Your task to perform on an android device: toggle show notifications on the lock screen Image 0: 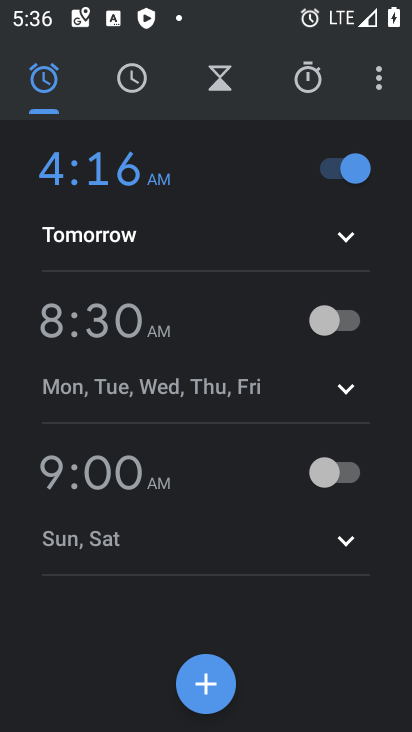
Step 0: press home button
Your task to perform on an android device: toggle show notifications on the lock screen Image 1: 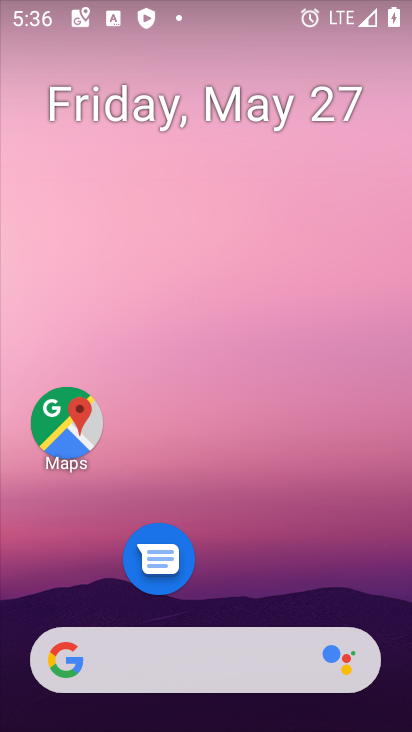
Step 1: drag from (188, 675) to (315, 1)
Your task to perform on an android device: toggle show notifications on the lock screen Image 2: 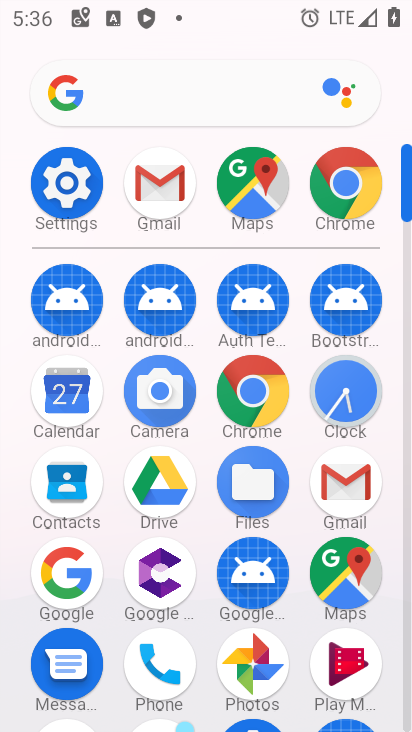
Step 2: click (77, 183)
Your task to perform on an android device: toggle show notifications on the lock screen Image 3: 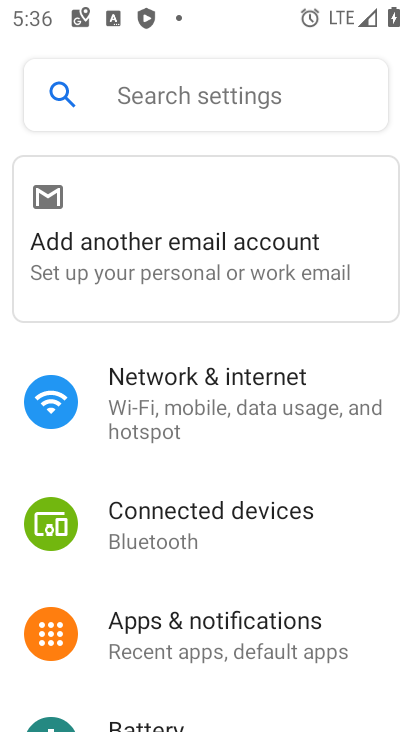
Step 3: click (252, 635)
Your task to perform on an android device: toggle show notifications on the lock screen Image 4: 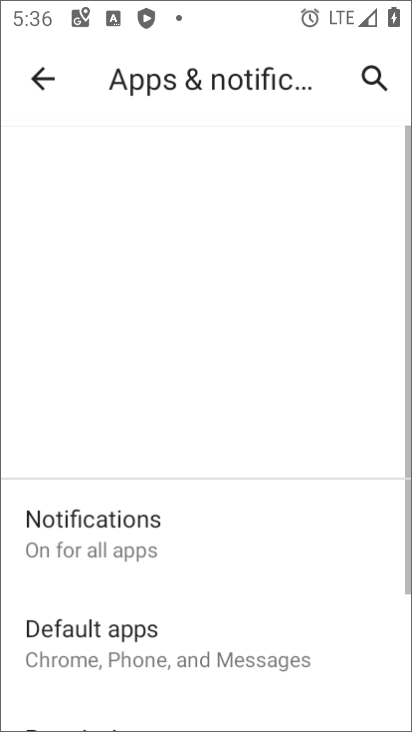
Step 4: drag from (249, 637) to (210, 118)
Your task to perform on an android device: toggle show notifications on the lock screen Image 5: 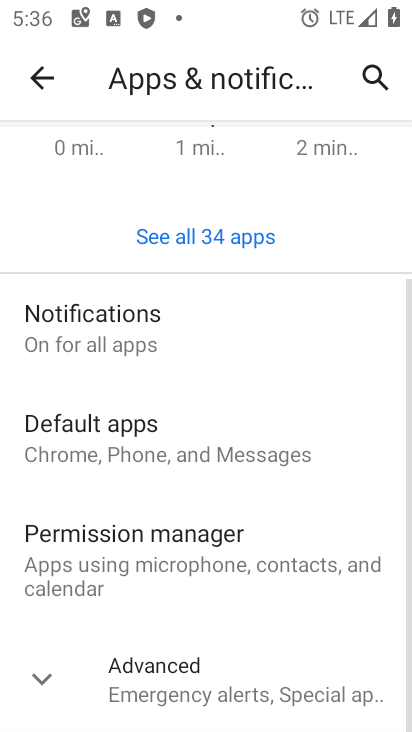
Step 5: drag from (227, 559) to (219, 272)
Your task to perform on an android device: toggle show notifications on the lock screen Image 6: 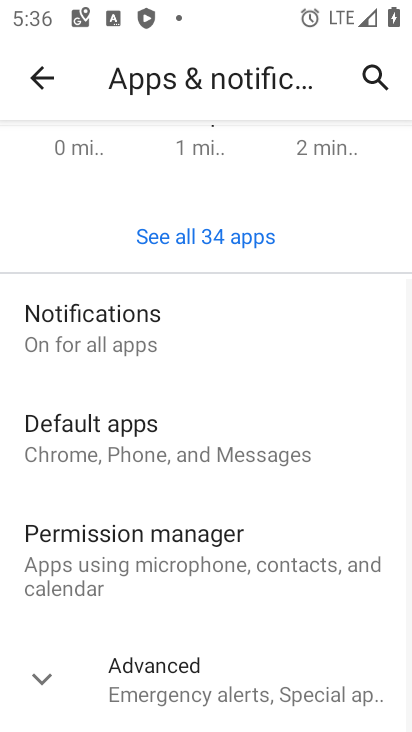
Step 6: click (184, 679)
Your task to perform on an android device: toggle show notifications on the lock screen Image 7: 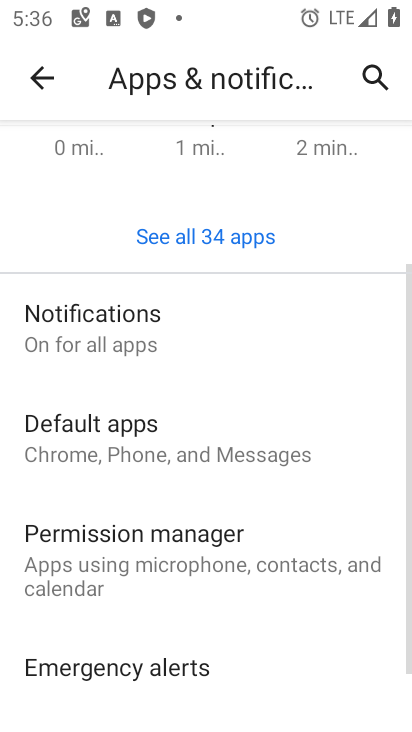
Step 7: drag from (267, 707) to (331, 209)
Your task to perform on an android device: toggle show notifications on the lock screen Image 8: 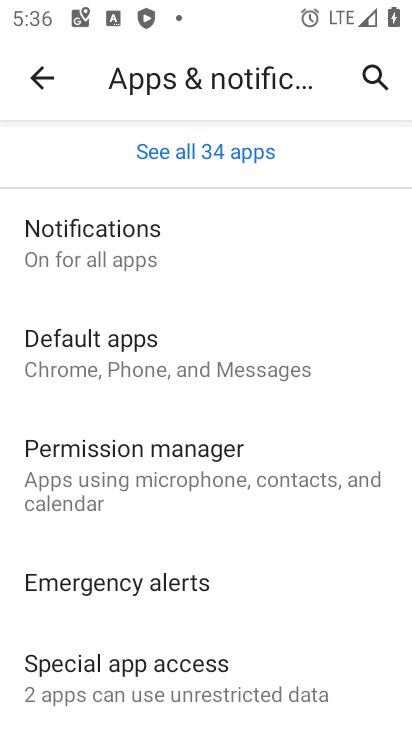
Step 8: click (133, 265)
Your task to perform on an android device: toggle show notifications on the lock screen Image 9: 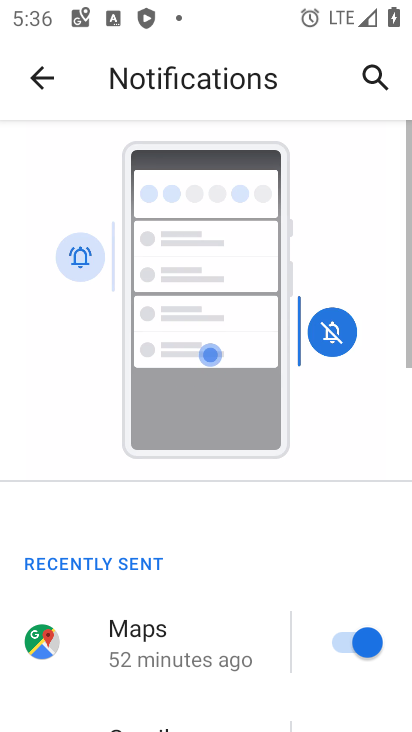
Step 9: drag from (258, 646) to (305, 131)
Your task to perform on an android device: toggle show notifications on the lock screen Image 10: 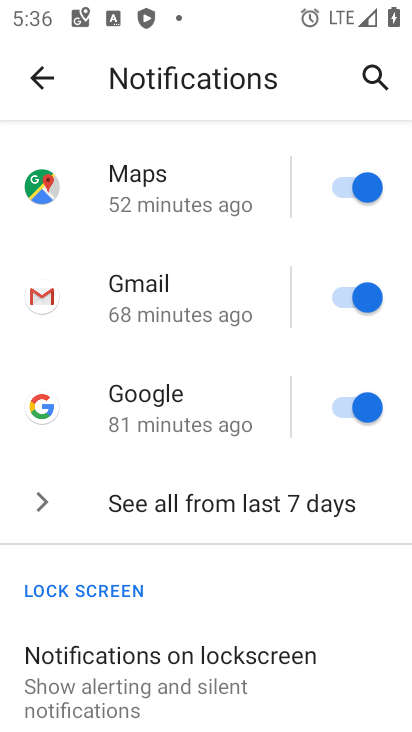
Step 10: click (290, 679)
Your task to perform on an android device: toggle show notifications on the lock screen Image 11: 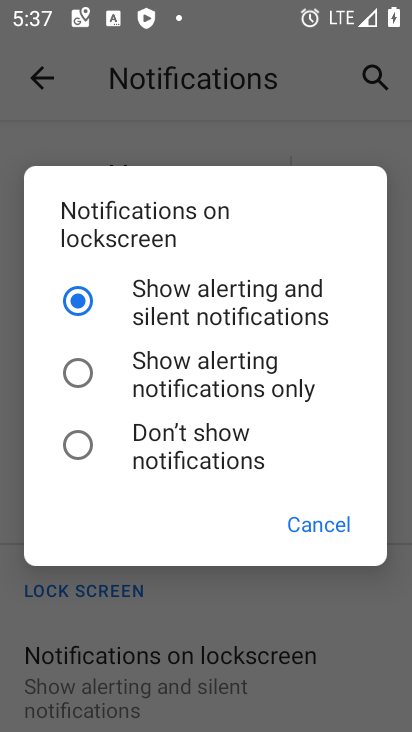
Step 11: click (87, 390)
Your task to perform on an android device: toggle show notifications on the lock screen Image 12: 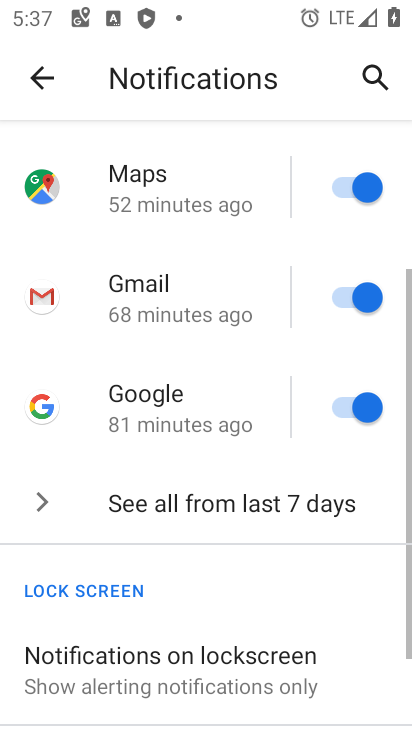
Step 12: task complete